Your task to perform on an android device: Open Chrome and go to the settings page Image 0: 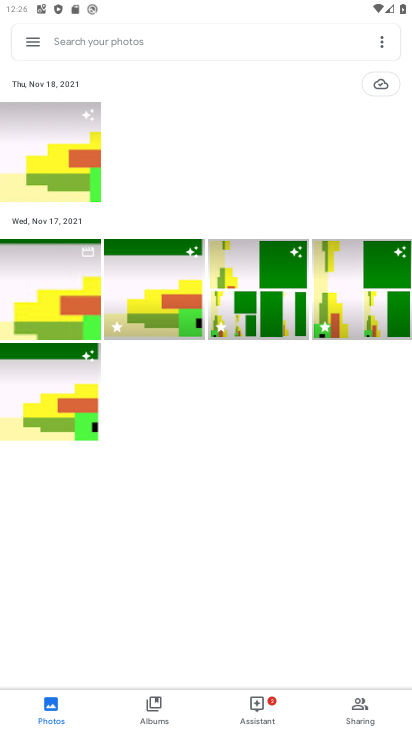
Step 0: press home button
Your task to perform on an android device: Open Chrome and go to the settings page Image 1: 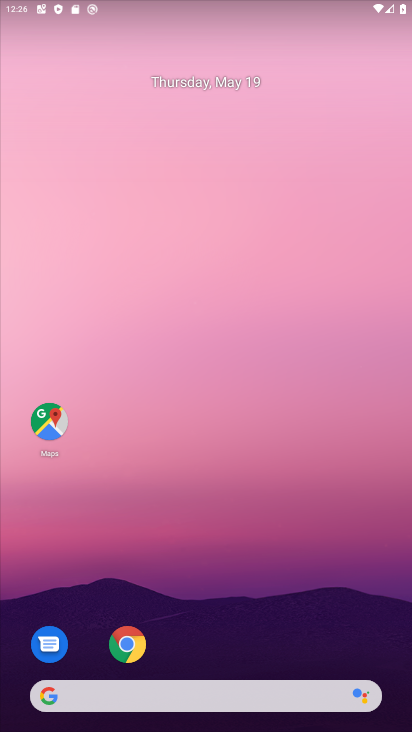
Step 1: drag from (317, 623) to (327, 179)
Your task to perform on an android device: Open Chrome and go to the settings page Image 2: 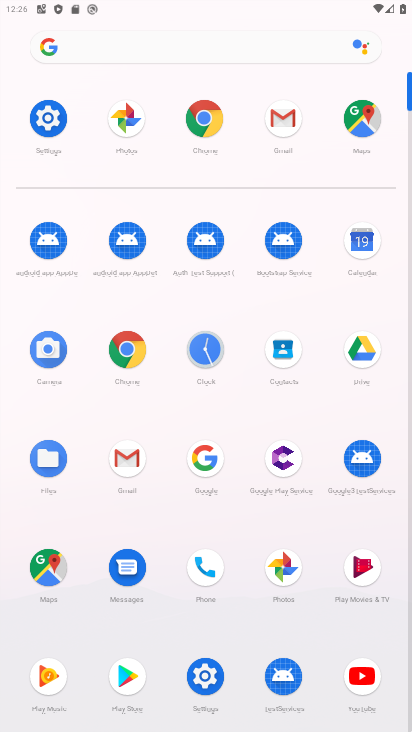
Step 2: click (129, 361)
Your task to perform on an android device: Open Chrome and go to the settings page Image 3: 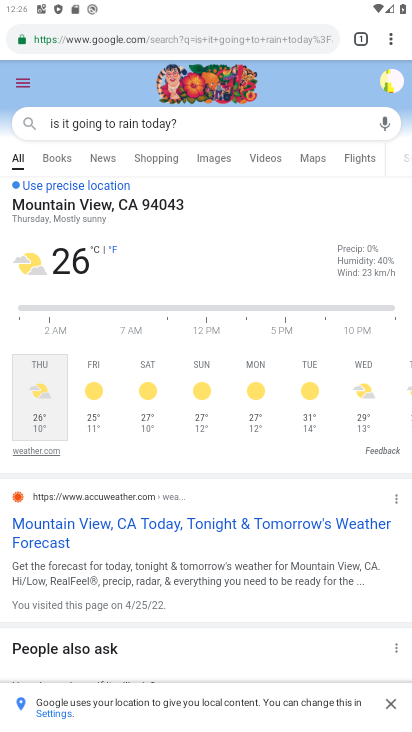
Step 3: task complete